Your task to perform on an android device: add a label to a message in the gmail app Image 0: 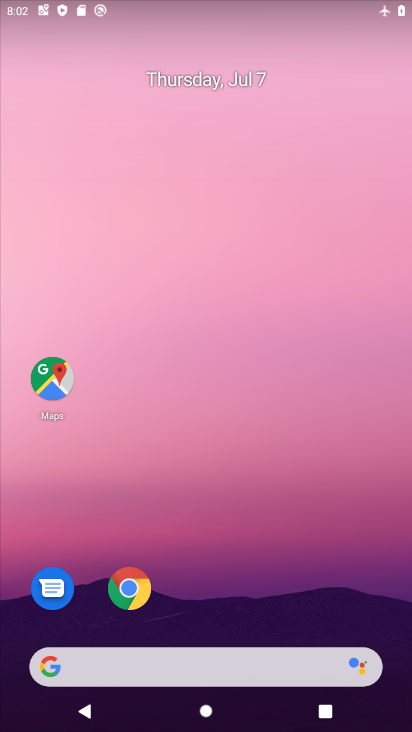
Step 0: drag from (357, 534) to (348, 196)
Your task to perform on an android device: add a label to a message in the gmail app Image 1: 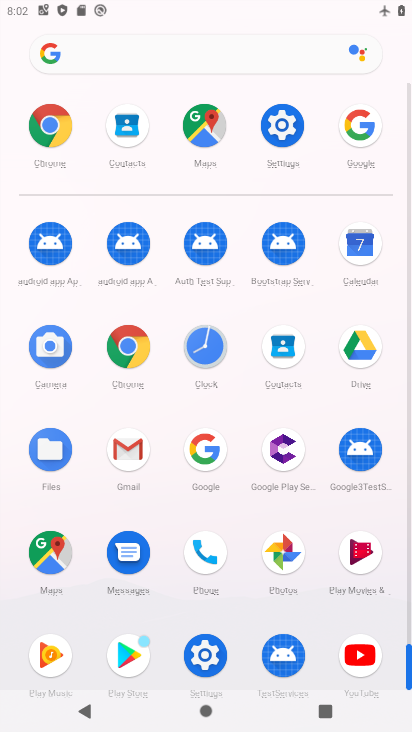
Step 1: click (122, 450)
Your task to perform on an android device: add a label to a message in the gmail app Image 2: 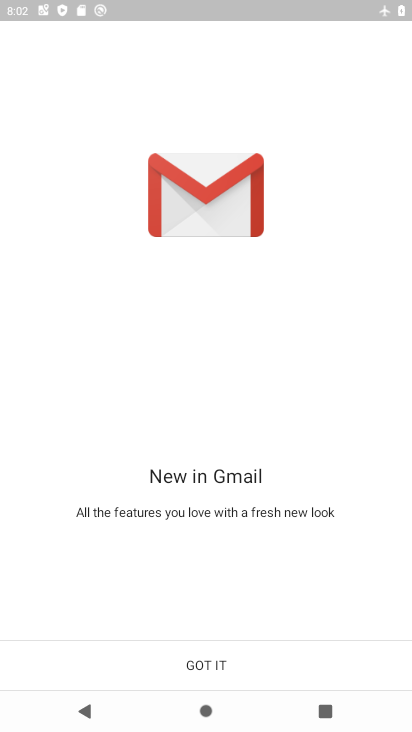
Step 2: click (239, 666)
Your task to perform on an android device: add a label to a message in the gmail app Image 3: 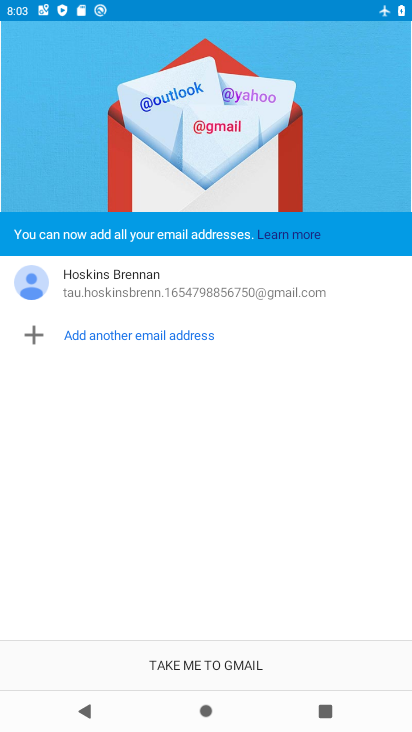
Step 3: click (235, 659)
Your task to perform on an android device: add a label to a message in the gmail app Image 4: 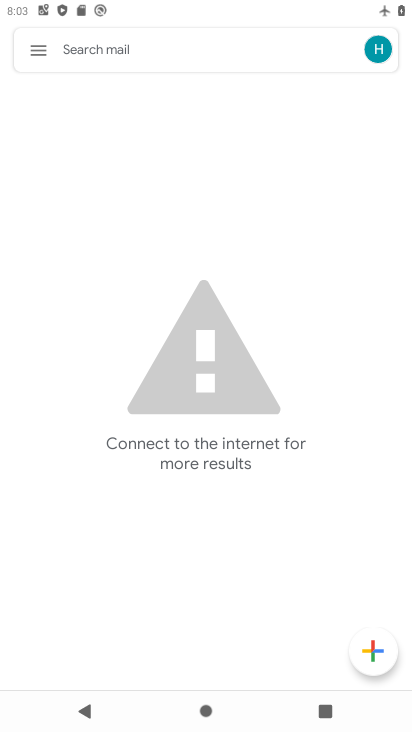
Step 4: task complete